Your task to perform on an android device: all mails in gmail Image 0: 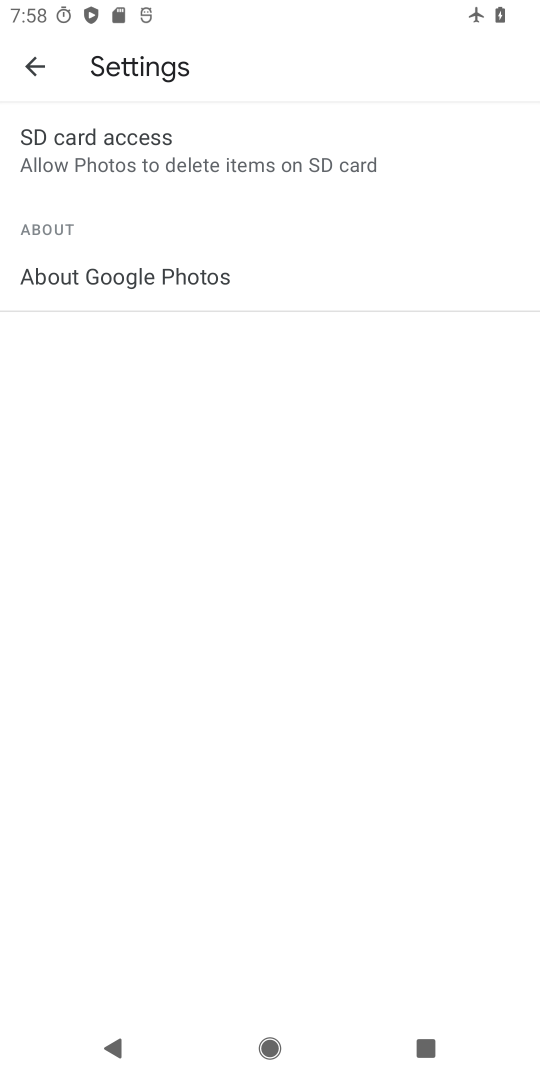
Step 0: press home button
Your task to perform on an android device: all mails in gmail Image 1: 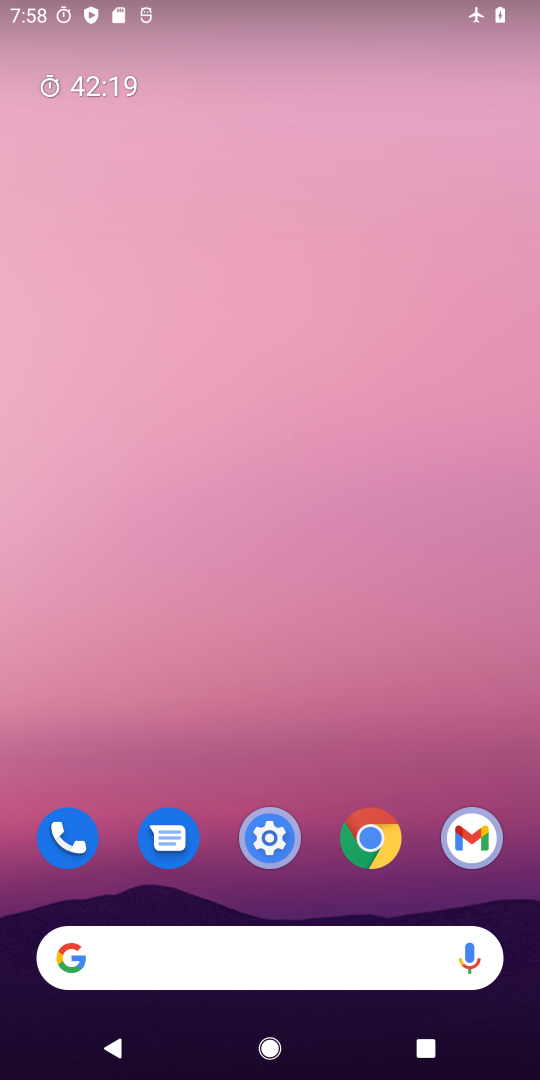
Step 1: drag from (311, 729) to (357, 28)
Your task to perform on an android device: all mails in gmail Image 2: 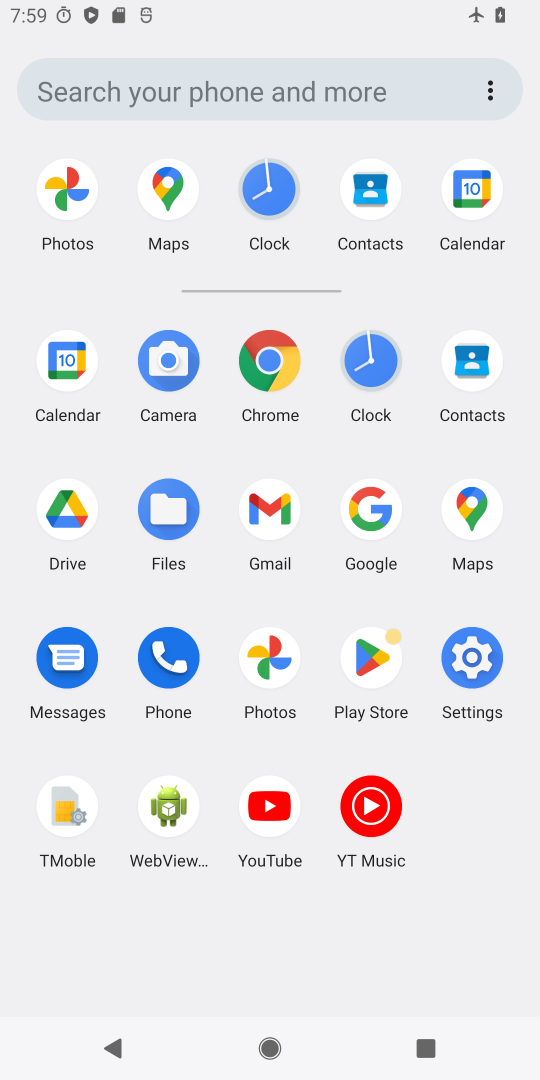
Step 2: click (257, 529)
Your task to perform on an android device: all mails in gmail Image 3: 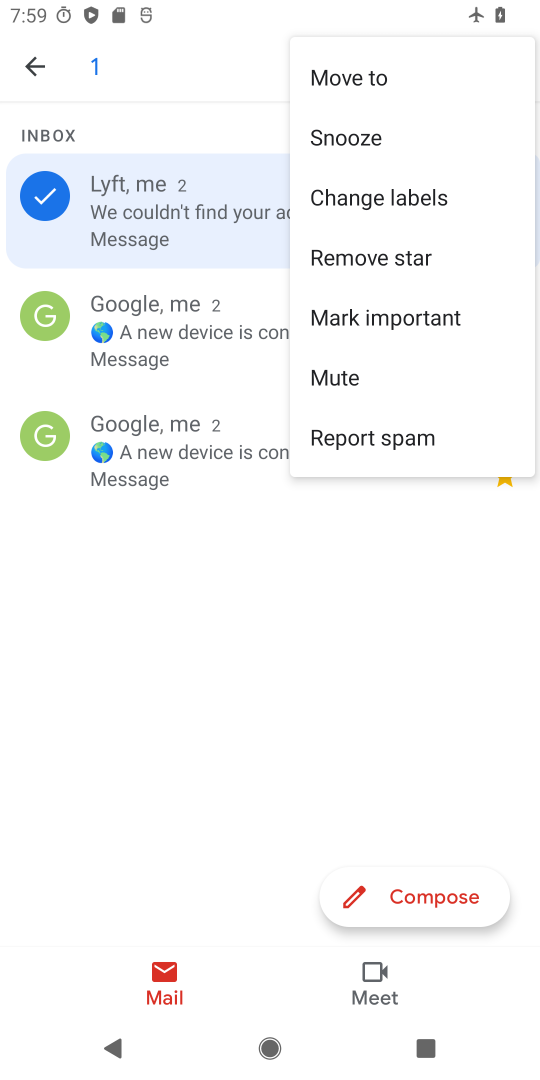
Step 3: click (26, 83)
Your task to perform on an android device: all mails in gmail Image 4: 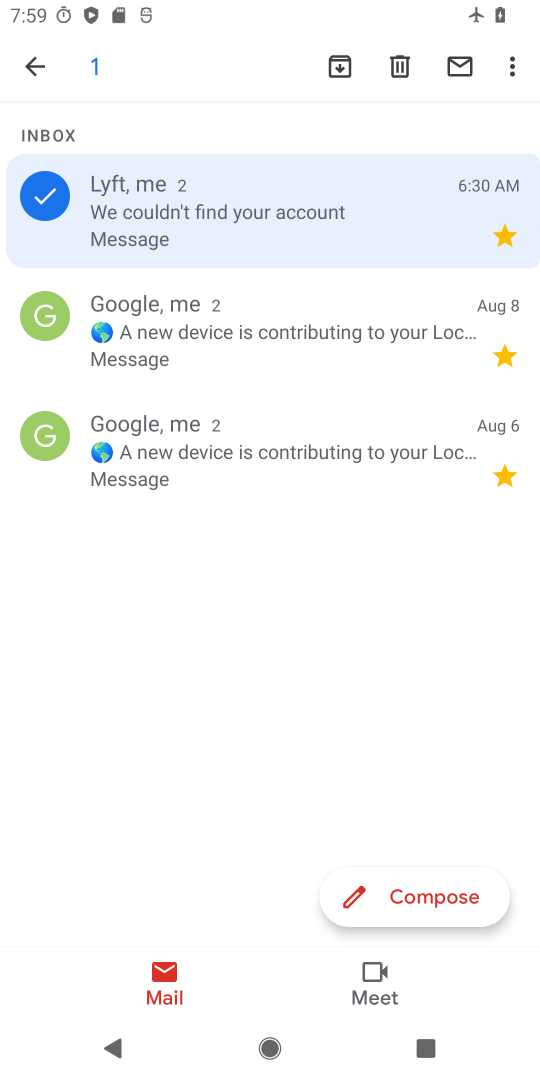
Step 4: click (40, 56)
Your task to perform on an android device: all mails in gmail Image 5: 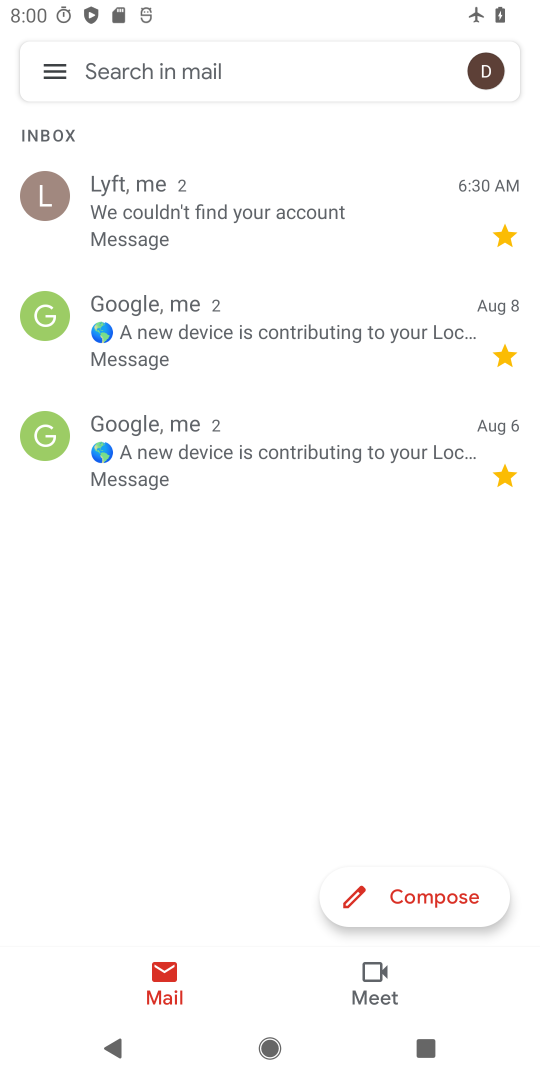
Step 5: click (57, 70)
Your task to perform on an android device: all mails in gmail Image 6: 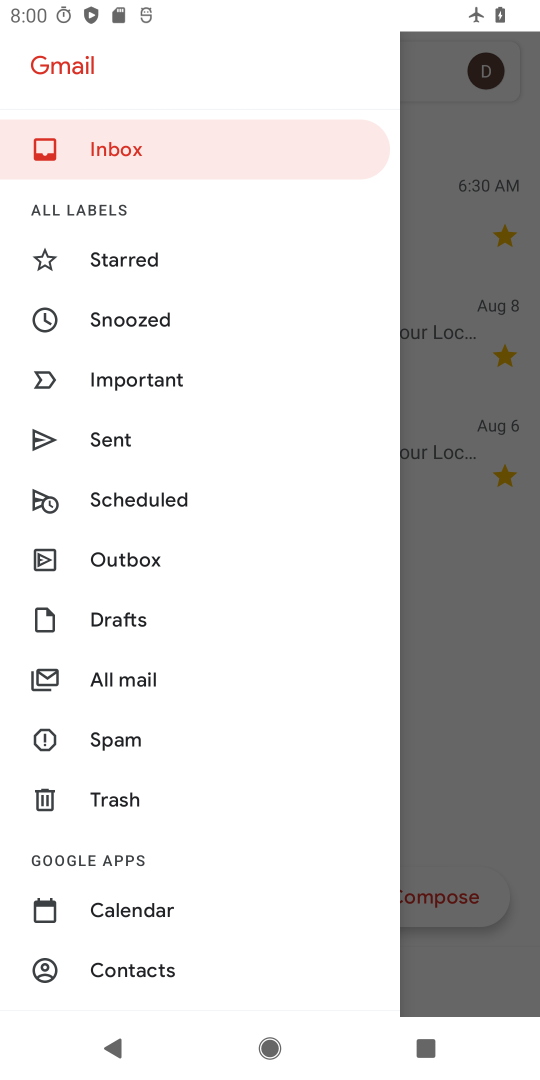
Step 6: click (100, 699)
Your task to perform on an android device: all mails in gmail Image 7: 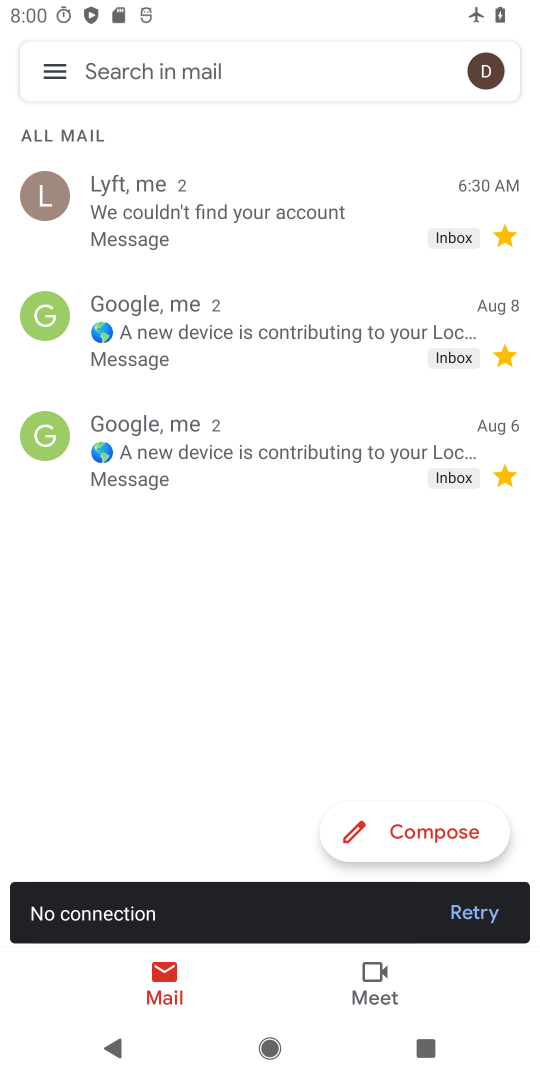
Step 7: task complete